Your task to perform on an android device: Empty the shopping cart on ebay.com. Add "razer deathadder" to the cart on ebay.com, then select checkout. Image 0: 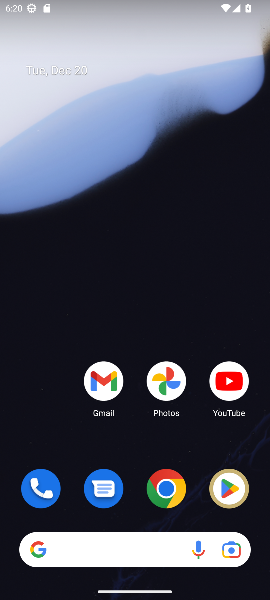
Step 0: press home button
Your task to perform on an android device: Empty the shopping cart on ebay.com. Add "razer deathadder" to the cart on ebay.com, then select checkout. Image 1: 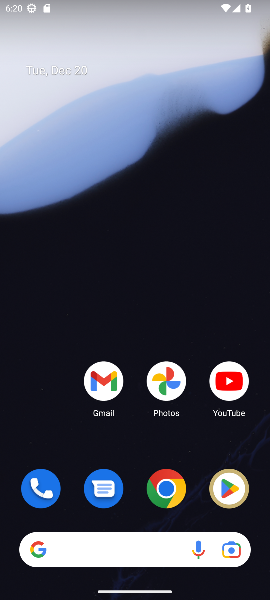
Step 1: drag from (64, 446) to (53, 47)
Your task to perform on an android device: Empty the shopping cart on ebay.com. Add "razer deathadder" to the cart on ebay.com, then select checkout. Image 2: 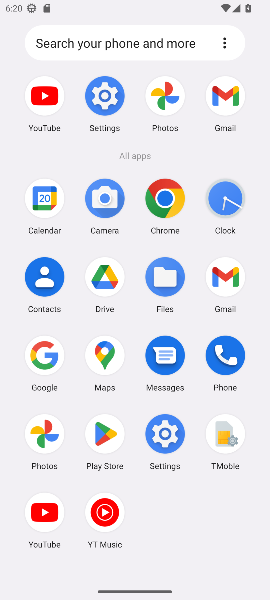
Step 2: click (34, 349)
Your task to perform on an android device: Empty the shopping cart on ebay.com. Add "razer deathadder" to the cart on ebay.com, then select checkout. Image 3: 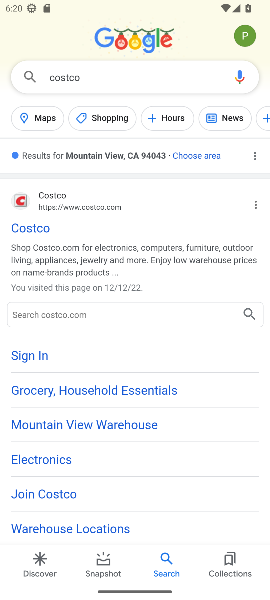
Step 3: click (151, 80)
Your task to perform on an android device: Empty the shopping cart on ebay.com. Add "razer deathadder" to the cart on ebay.com, then select checkout. Image 4: 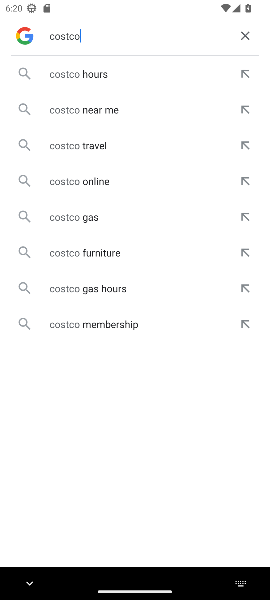
Step 4: click (244, 32)
Your task to perform on an android device: Empty the shopping cart on ebay.com. Add "razer deathadder" to the cart on ebay.com, then select checkout. Image 5: 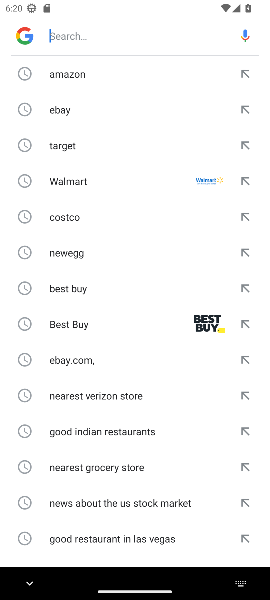
Step 5: type "ebay.com"
Your task to perform on an android device: Empty the shopping cart on ebay.com. Add "razer deathadder" to the cart on ebay.com, then select checkout. Image 6: 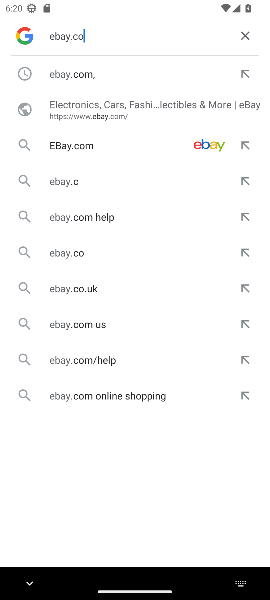
Step 6: press enter
Your task to perform on an android device: Empty the shopping cart on ebay.com. Add "razer deathadder" to the cart on ebay.com, then select checkout. Image 7: 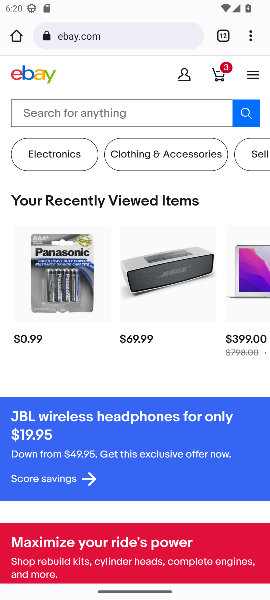
Step 7: click (224, 70)
Your task to perform on an android device: Empty the shopping cart on ebay.com. Add "razer deathadder" to the cart on ebay.com, then select checkout. Image 8: 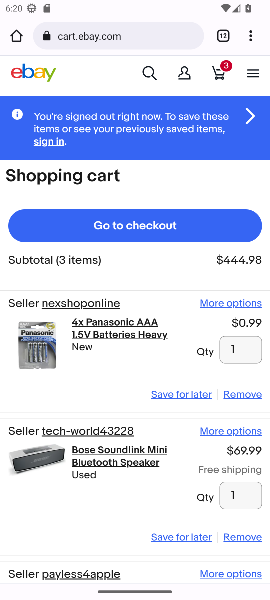
Step 8: click (243, 393)
Your task to perform on an android device: Empty the shopping cart on ebay.com. Add "razer deathadder" to the cart on ebay.com, then select checkout. Image 9: 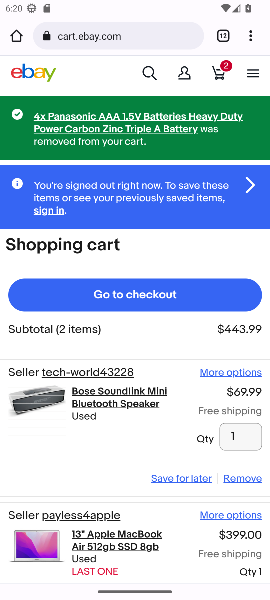
Step 9: click (240, 478)
Your task to perform on an android device: Empty the shopping cart on ebay.com. Add "razer deathadder" to the cart on ebay.com, then select checkout. Image 10: 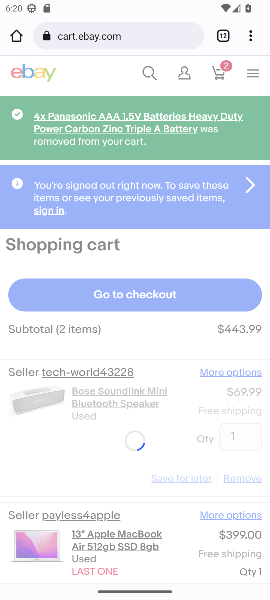
Step 10: drag from (147, 345) to (146, 192)
Your task to perform on an android device: Empty the shopping cart on ebay.com. Add "razer deathadder" to the cart on ebay.com, then select checkout. Image 11: 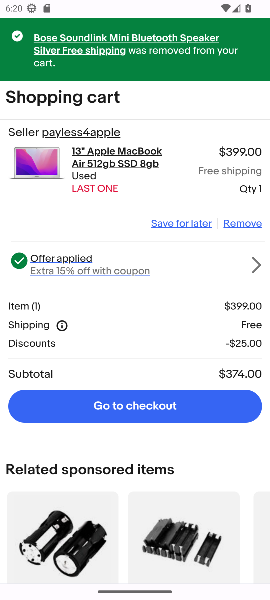
Step 11: click (237, 223)
Your task to perform on an android device: Empty the shopping cart on ebay.com. Add "razer deathadder" to the cart on ebay.com, then select checkout. Image 12: 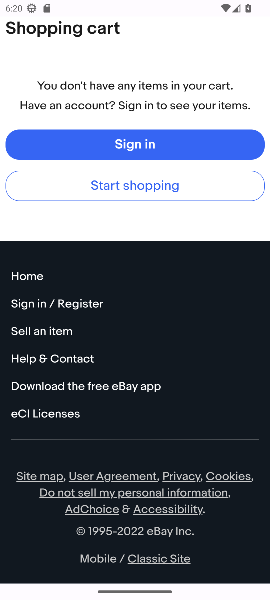
Step 12: press back button
Your task to perform on an android device: Empty the shopping cart on ebay.com. Add "razer deathadder" to the cart on ebay.com, then select checkout. Image 13: 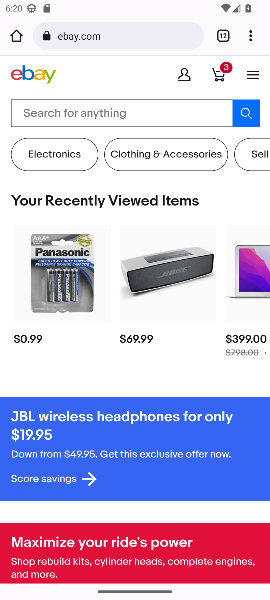
Step 13: click (91, 113)
Your task to perform on an android device: Empty the shopping cart on ebay.com. Add "razer deathadder" to the cart on ebay.com, then select checkout. Image 14: 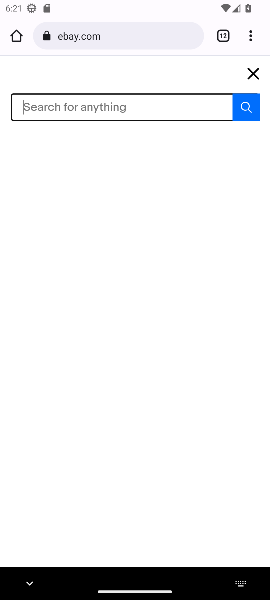
Step 14: type "razer deathadder"
Your task to perform on an android device: Empty the shopping cart on ebay.com. Add "razer deathadder" to the cart on ebay.com, then select checkout. Image 15: 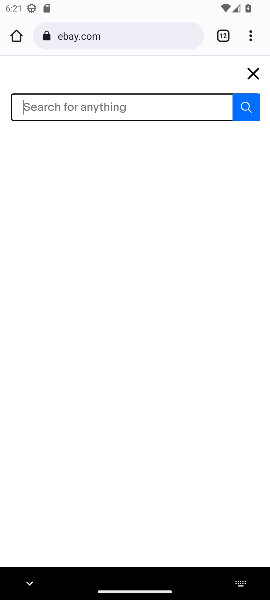
Step 15: press enter
Your task to perform on an android device: Empty the shopping cart on ebay.com. Add "razer deathadder" to the cart on ebay.com, then select checkout. Image 16: 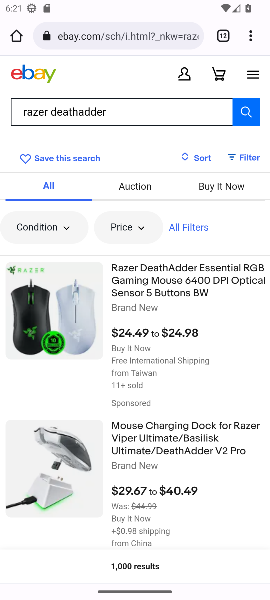
Step 16: click (152, 282)
Your task to perform on an android device: Empty the shopping cart on ebay.com. Add "razer deathadder" to the cart on ebay.com, then select checkout. Image 17: 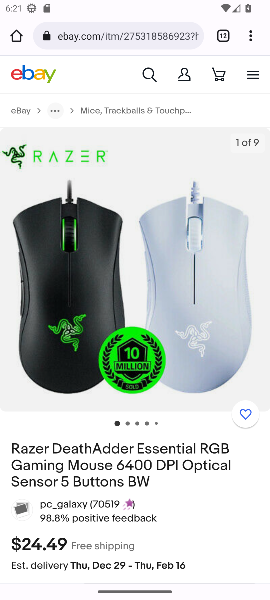
Step 17: drag from (169, 502) to (153, 161)
Your task to perform on an android device: Empty the shopping cart on ebay.com. Add "razer deathadder" to the cart on ebay.com, then select checkout. Image 18: 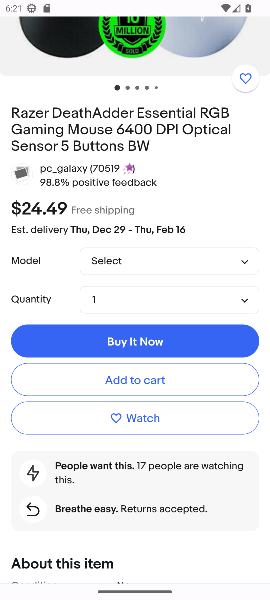
Step 18: click (120, 381)
Your task to perform on an android device: Empty the shopping cart on ebay.com. Add "razer deathadder" to the cart on ebay.com, then select checkout. Image 19: 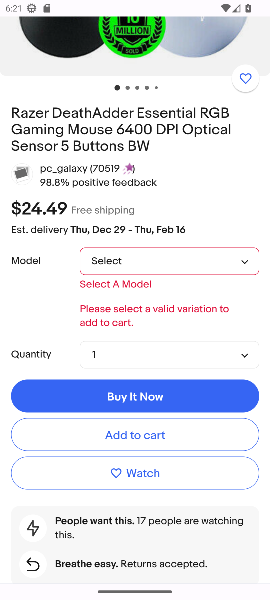
Step 19: click (239, 261)
Your task to perform on an android device: Empty the shopping cart on ebay.com. Add "razer deathadder" to the cart on ebay.com, then select checkout. Image 20: 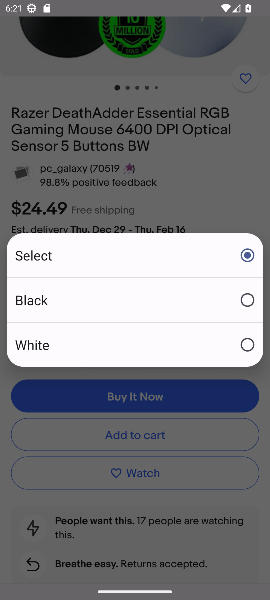
Step 20: click (244, 298)
Your task to perform on an android device: Empty the shopping cart on ebay.com. Add "razer deathadder" to the cart on ebay.com, then select checkout. Image 21: 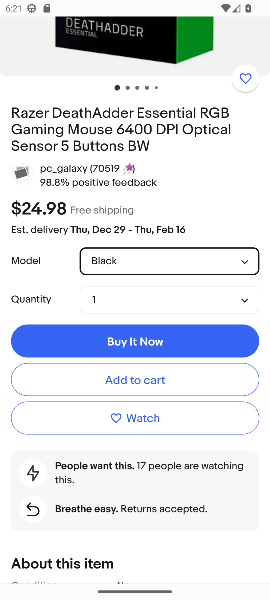
Step 21: click (159, 379)
Your task to perform on an android device: Empty the shopping cart on ebay.com. Add "razer deathadder" to the cart on ebay.com, then select checkout. Image 22: 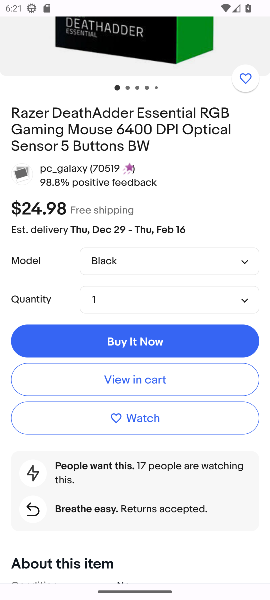
Step 22: click (134, 379)
Your task to perform on an android device: Empty the shopping cart on ebay.com. Add "razer deathadder" to the cart on ebay.com, then select checkout. Image 23: 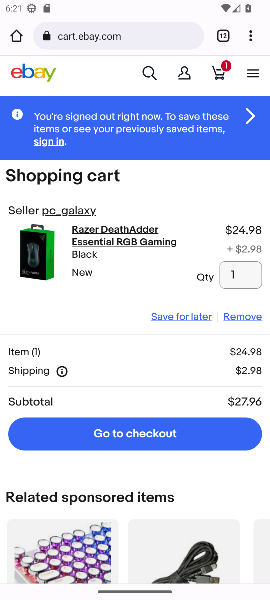
Step 23: click (111, 435)
Your task to perform on an android device: Empty the shopping cart on ebay.com. Add "razer deathadder" to the cart on ebay.com, then select checkout. Image 24: 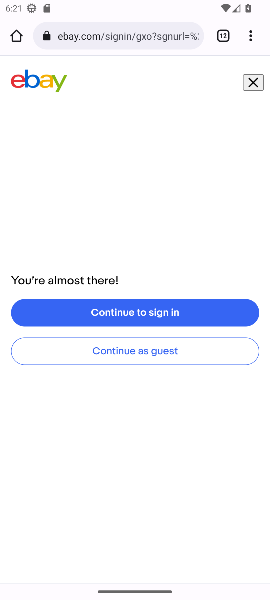
Step 24: task complete